Your task to perform on an android device: Open Google Maps and go to "Timeline" Image 0: 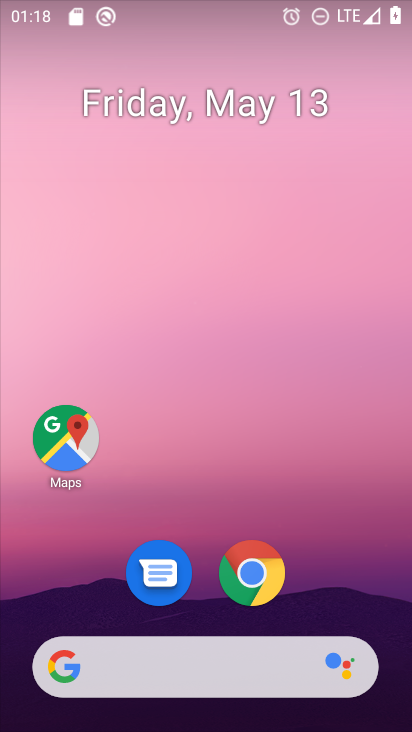
Step 0: click (66, 448)
Your task to perform on an android device: Open Google Maps and go to "Timeline" Image 1: 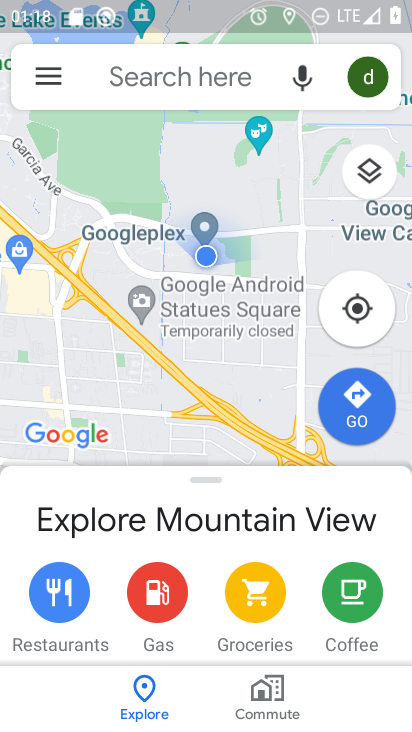
Step 1: click (50, 84)
Your task to perform on an android device: Open Google Maps and go to "Timeline" Image 2: 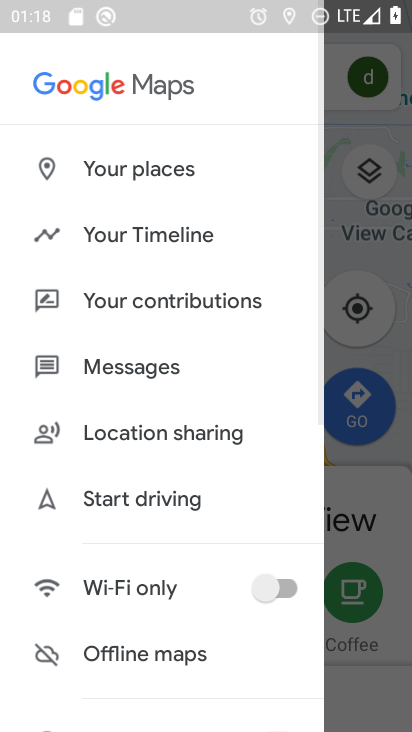
Step 2: click (80, 238)
Your task to perform on an android device: Open Google Maps and go to "Timeline" Image 3: 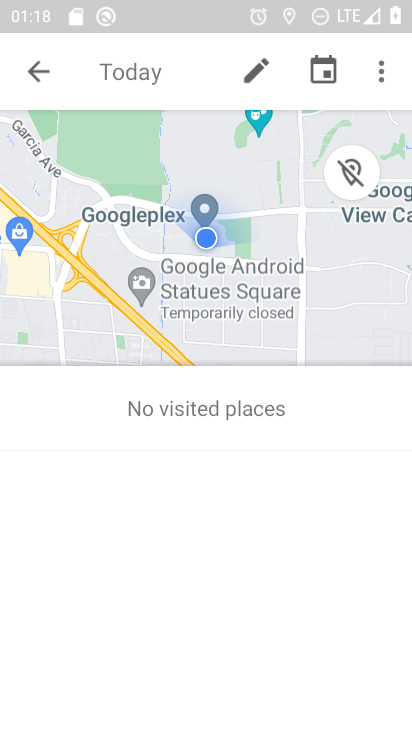
Step 3: task complete